Your task to perform on an android device: check the backup settings in the google photos Image 0: 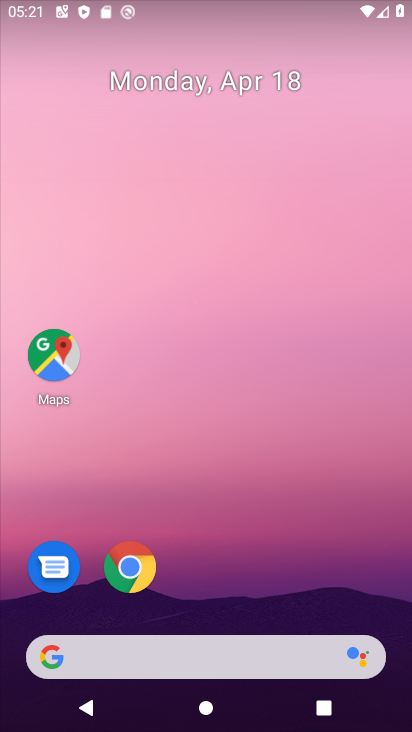
Step 0: drag from (341, 569) to (301, 60)
Your task to perform on an android device: check the backup settings in the google photos Image 1: 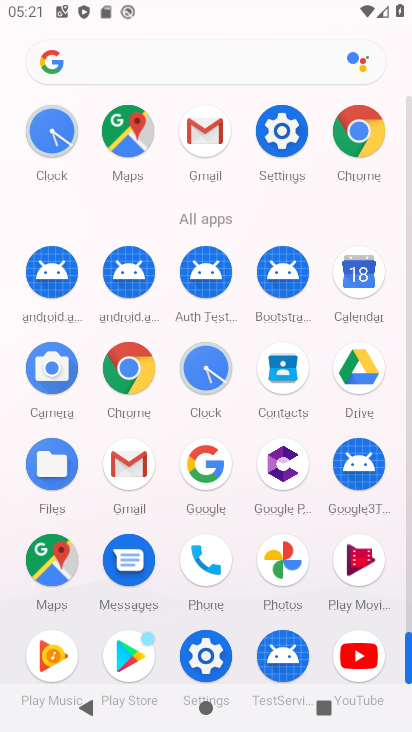
Step 1: drag from (3, 512) to (3, 300)
Your task to perform on an android device: check the backup settings in the google photos Image 2: 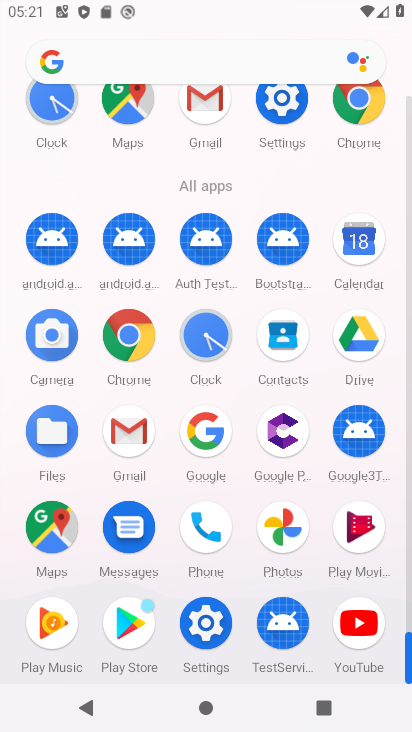
Step 2: click (283, 527)
Your task to perform on an android device: check the backup settings in the google photos Image 3: 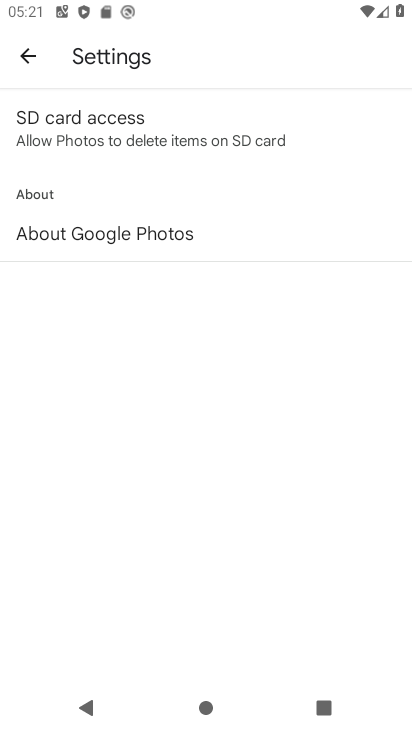
Step 3: click (24, 63)
Your task to perform on an android device: check the backup settings in the google photos Image 4: 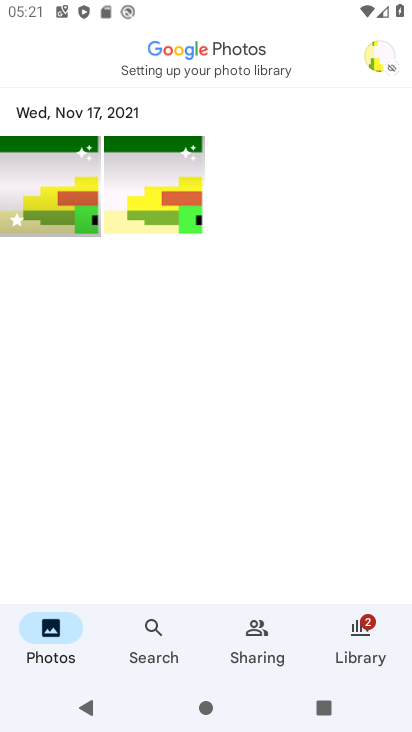
Step 4: click (363, 53)
Your task to perform on an android device: check the backup settings in the google photos Image 5: 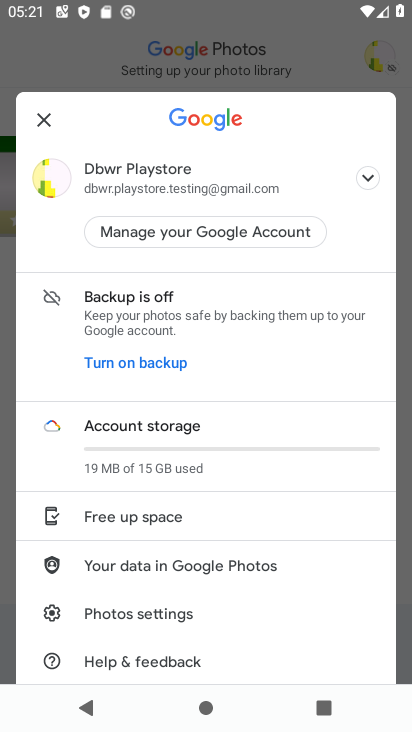
Step 5: drag from (243, 550) to (264, 278)
Your task to perform on an android device: check the backup settings in the google photos Image 6: 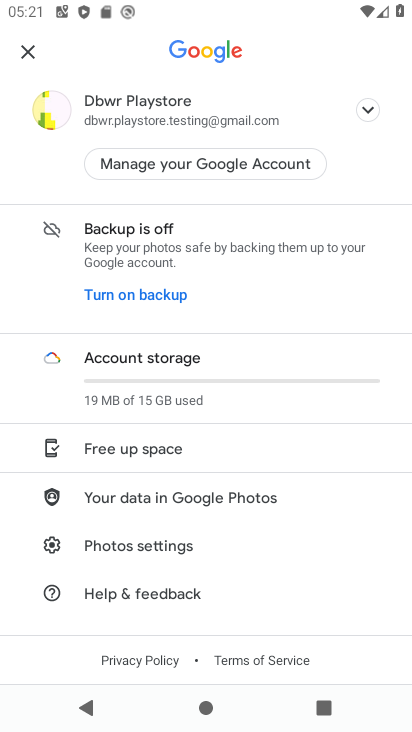
Step 6: click (151, 547)
Your task to perform on an android device: check the backup settings in the google photos Image 7: 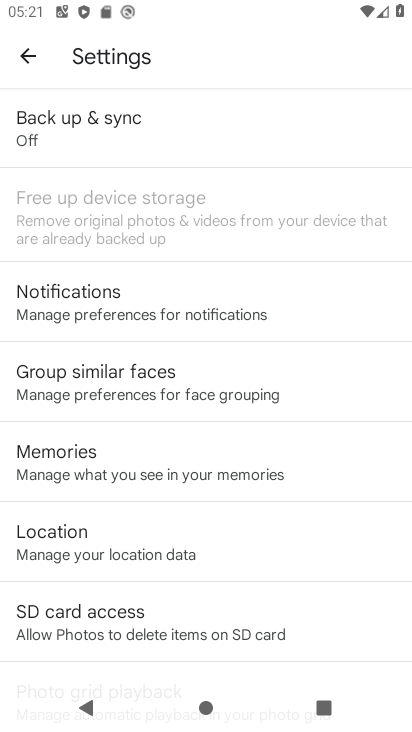
Step 7: click (172, 165)
Your task to perform on an android device: check the backup settings in the google photos Image 8: 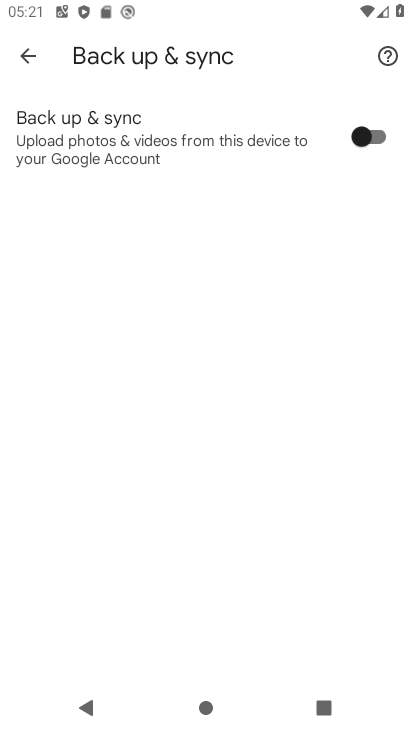
Step 8: click (23, 59)
Your task to perform on an android device: check the backup settings in the google photos Image 9: 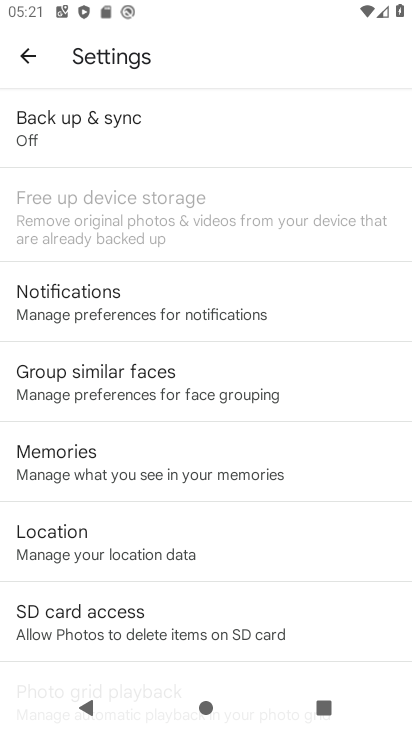
Step 9: drag from (165, 543) to (198, 282)
Your task to perform on an android device: check the backup settings in the google photos Image 10: 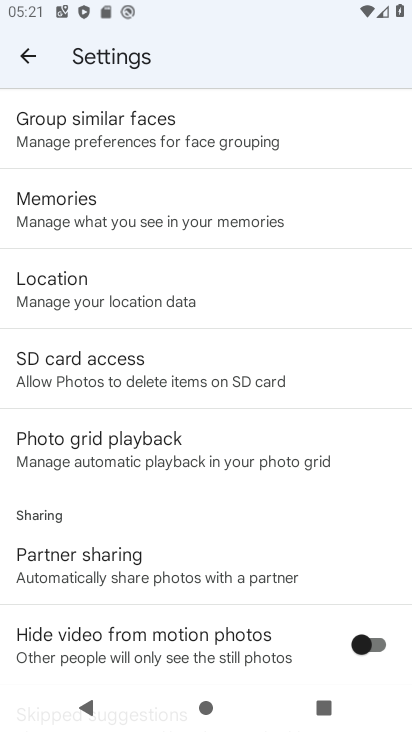
Step 10: drag from (148, 606) to (165, 266)
Your task to perform on an android device: check the backup settings in the google photos Image 11: 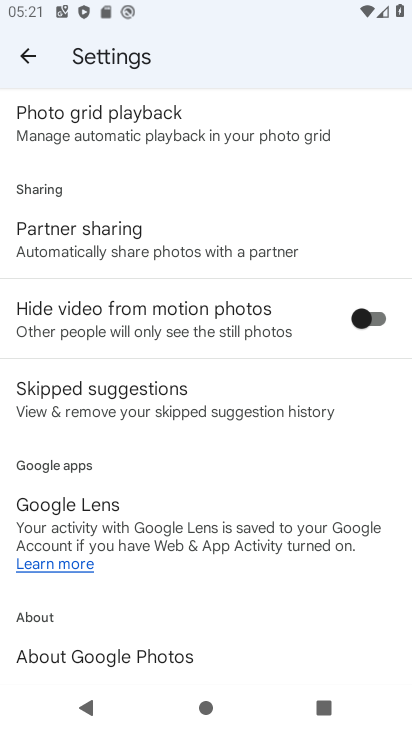
Step 11: drag from (204, 157) to (176, 576)
Your task to perform on an android device: check the backup settings in the google photos Image 12: 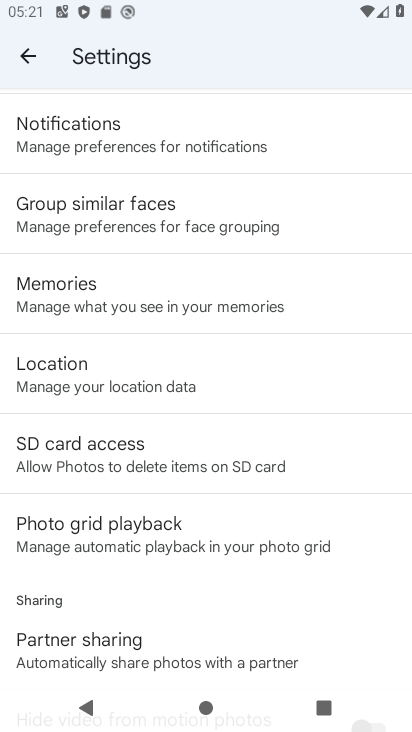
Step 12: drag from (214, 172) to (188, 634)
Your task to perform on an android device: check the backup settings in the google photos Image 13: 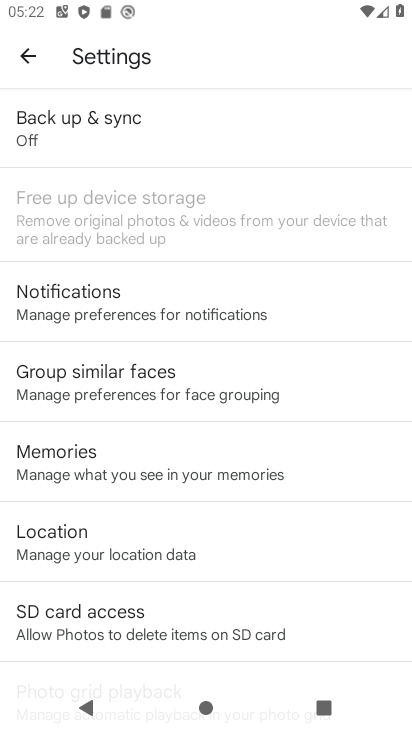
Step 13: click (123, 140)
Your task to perform on an android device: check the backup settings in the google photos Image 14: 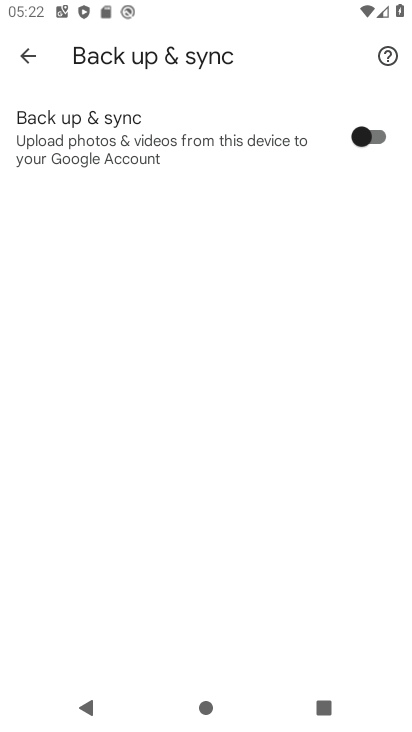
Step 14: click (34, 42)
Your task to perform on an android device: check the backup settings in the google photos Image 15: 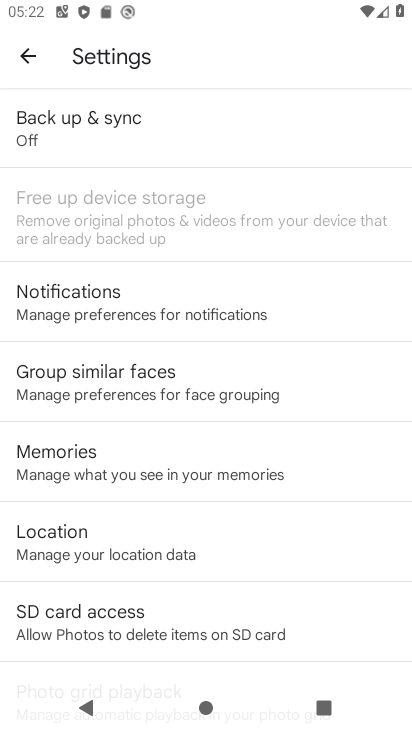
Step 15: click (30, 59)
Your task to perform on an android device: check the backup settings in the google photos Image 16: 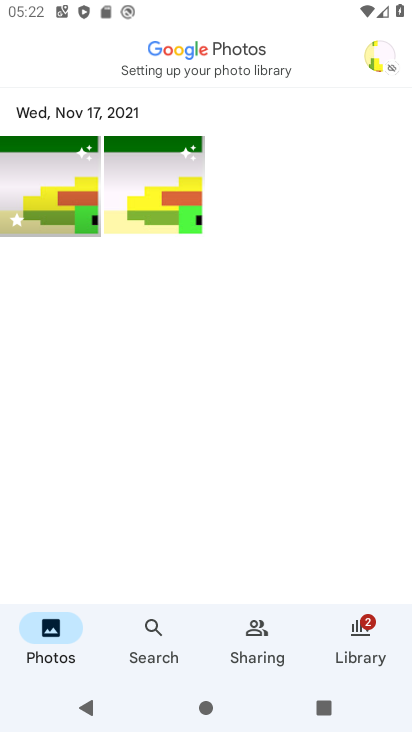
Step 16: task complete